Your task to perform on an android device: Go to Google maps Image 0: 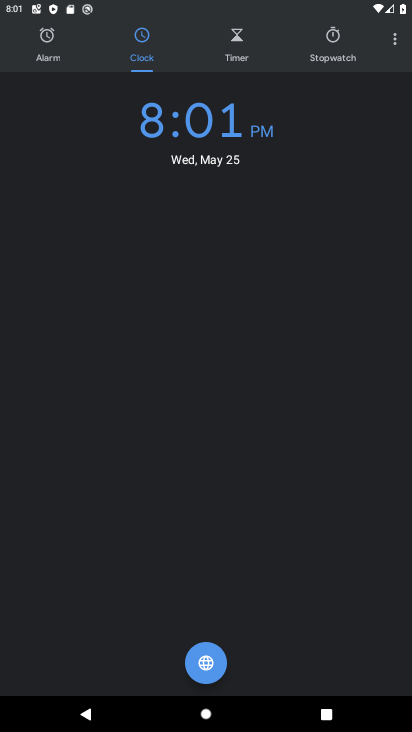
Step 0: press back button
Your task to perform on an android device: Go to Google maps Image 1: 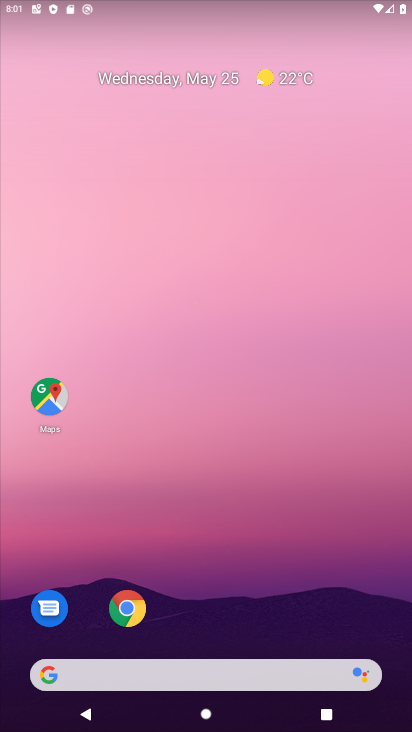
Step 1: click (50, 399)
Your task to perform on an android device: Go to Google maps Image 2: 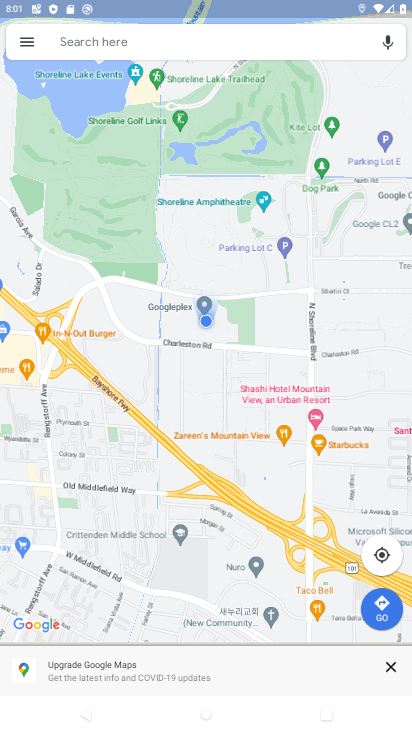
Step 2: task complete